Your task to perform on an android device: open app "Viber Messenger" (install if not already installed) and go to login screen Image 0: 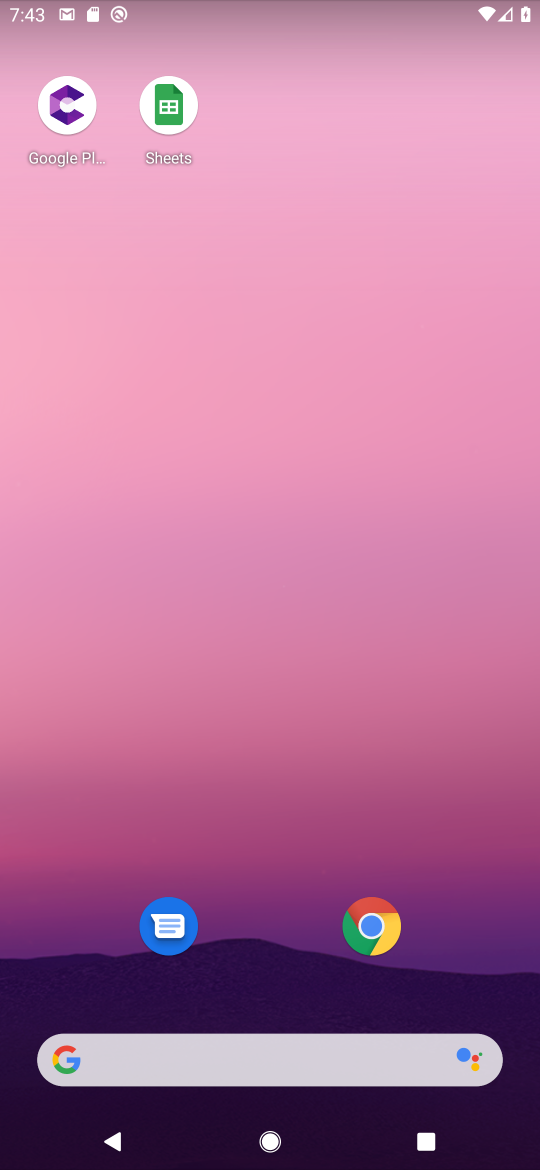
Step 0: drag from (281, 997) to (492, 32)
Your task to perform on an android device: open app "Viber Messenger" (install if not already installed) and go to login screen Image 1: 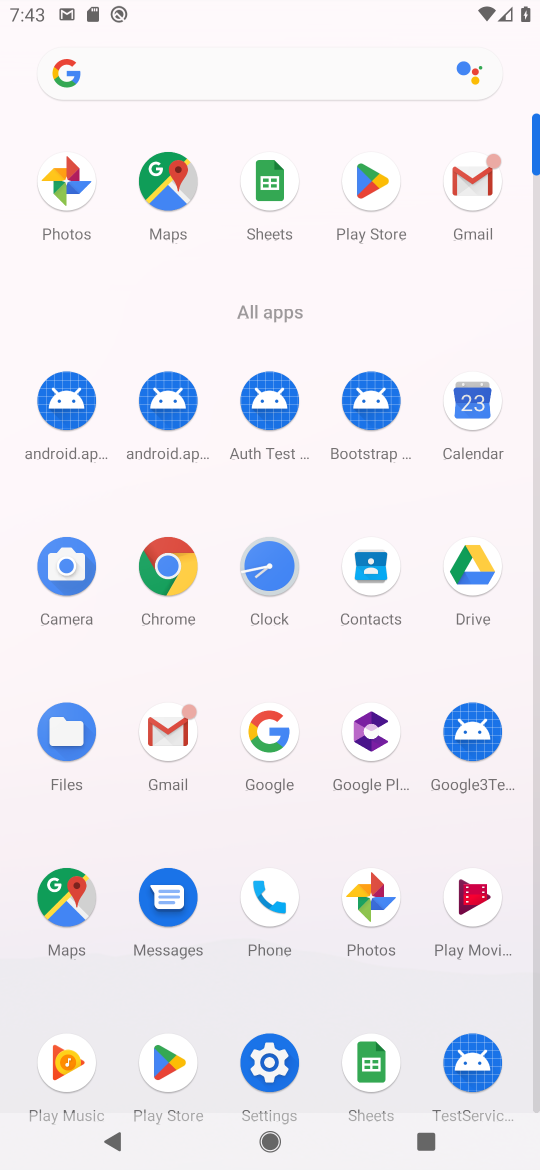
Step 1: click (378, 210)
Your task to perform on an android device: open app "Viber Messenger" (install if not already installed) and go to login screen Image 2: 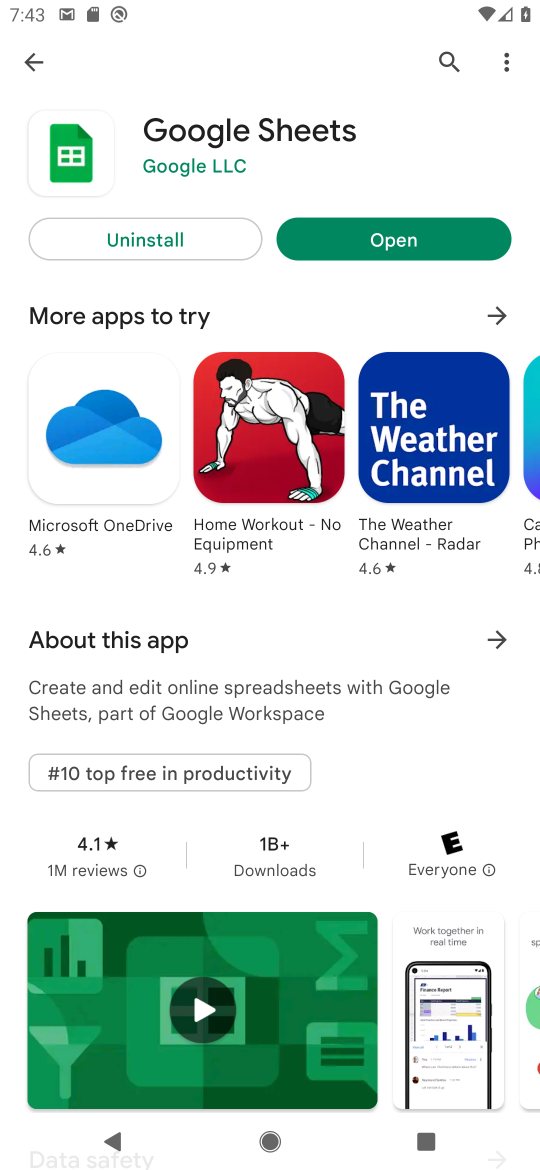
Step 2: click (45, 63)
Your task to perform on an android device: open app "Viber Messenger" (install if not already installed) and go to login screen Image 3: 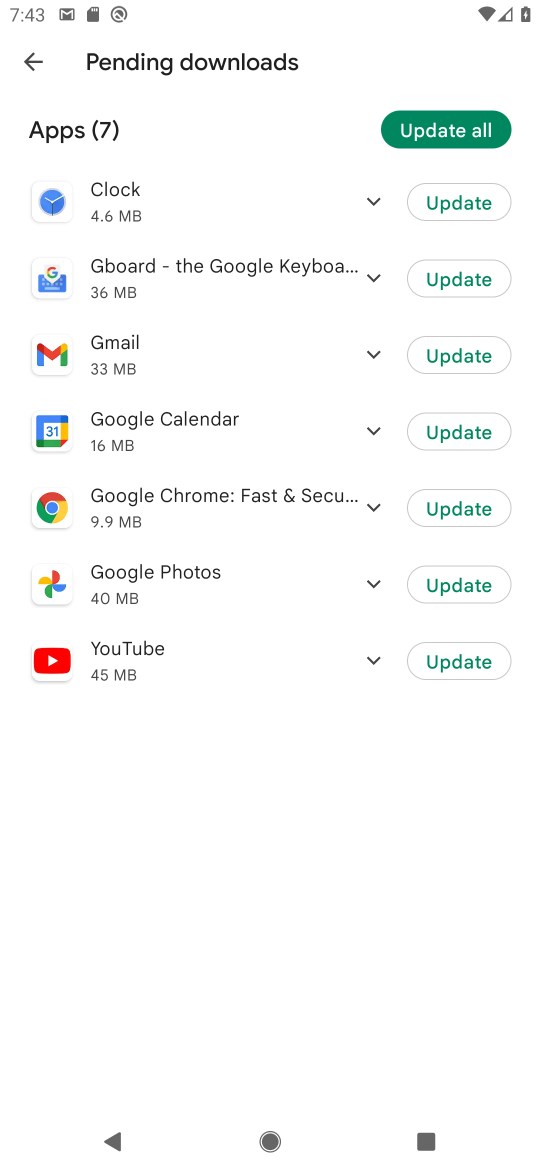
Step 3: click (25, 44)
Your task to perform on an android device: open app "Viber Messenger" (install if not already installed) and go to login screen Image 4: 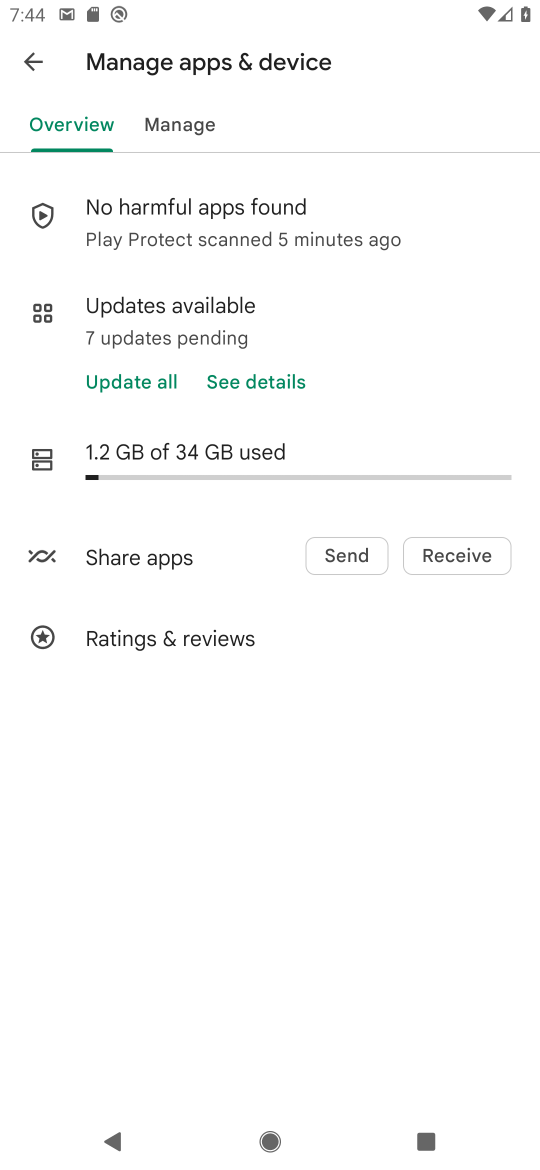
Step 4: click (37, 52)
Your task to perform on an android device: open app "Viber Messenger" (install if not already installed) and go to login screen Image 5: 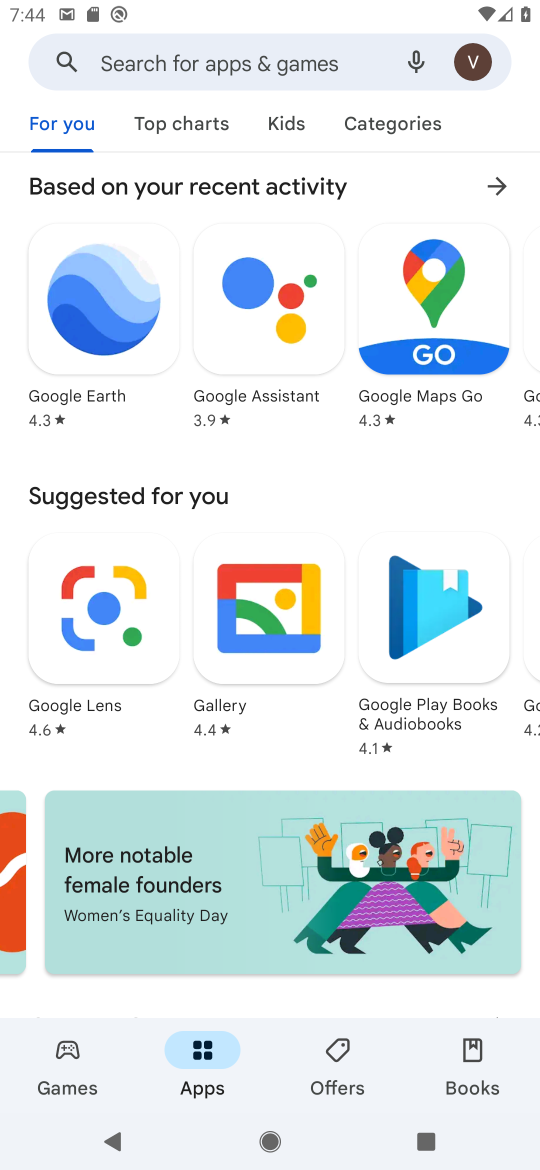
Step 5: click (186, 57)
Your task to perform on an android device: open app "Viber Messenger" (install if not already installed) and go to login screen Image 6: 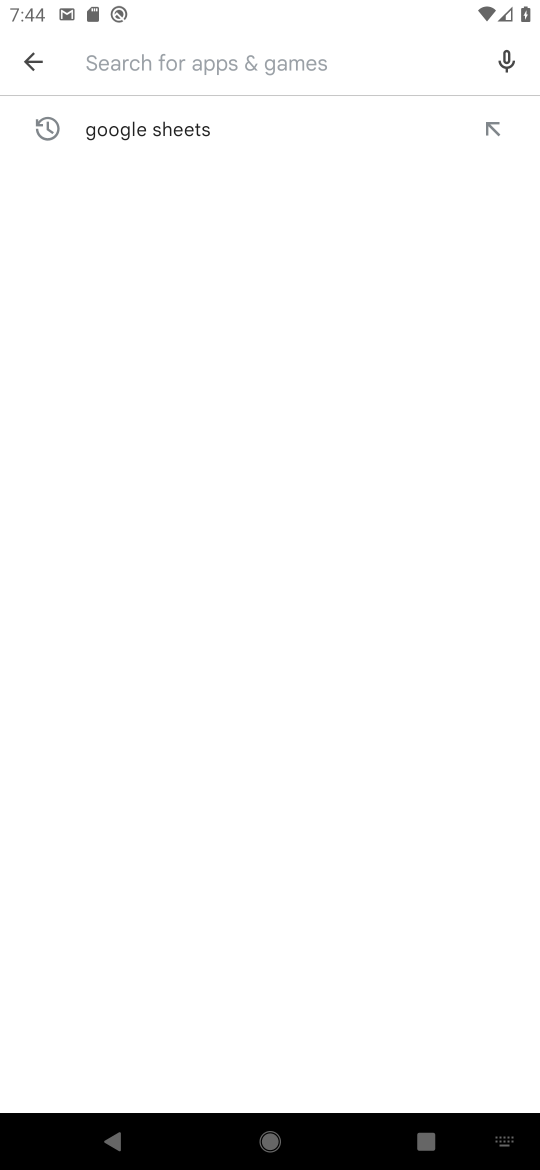
Step 6: type "viber messenger"
Your task to perform on an android device: open app "Viber Messenger" (install if not already installed) and go to login screen Image 7: 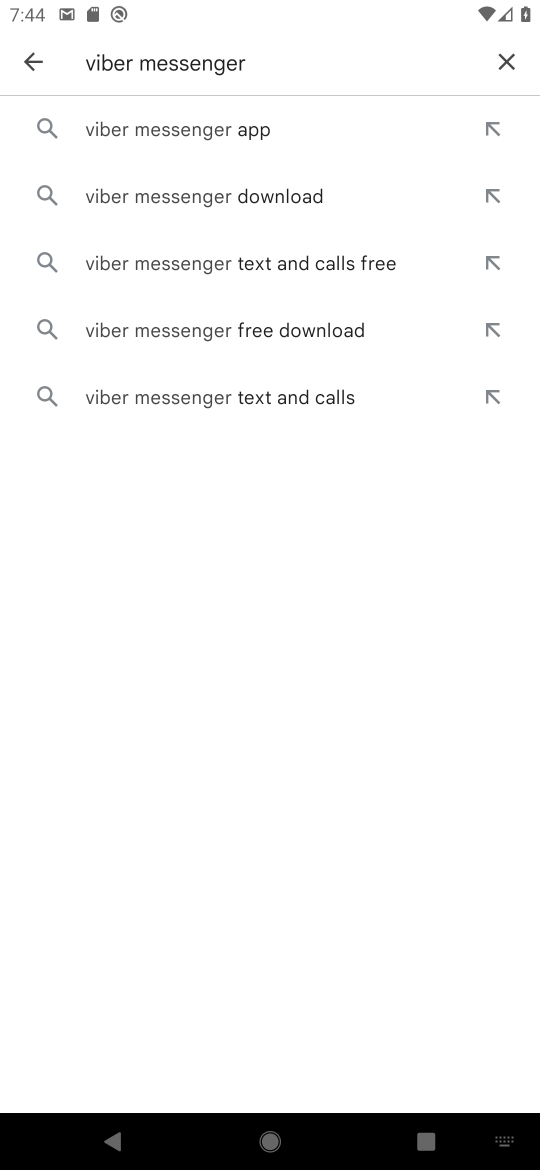
Step 7: click (113, 141)
Your task to perform on an android device: open app "Viber Messenger" (install if not already installed) and go to login screen Image 8: 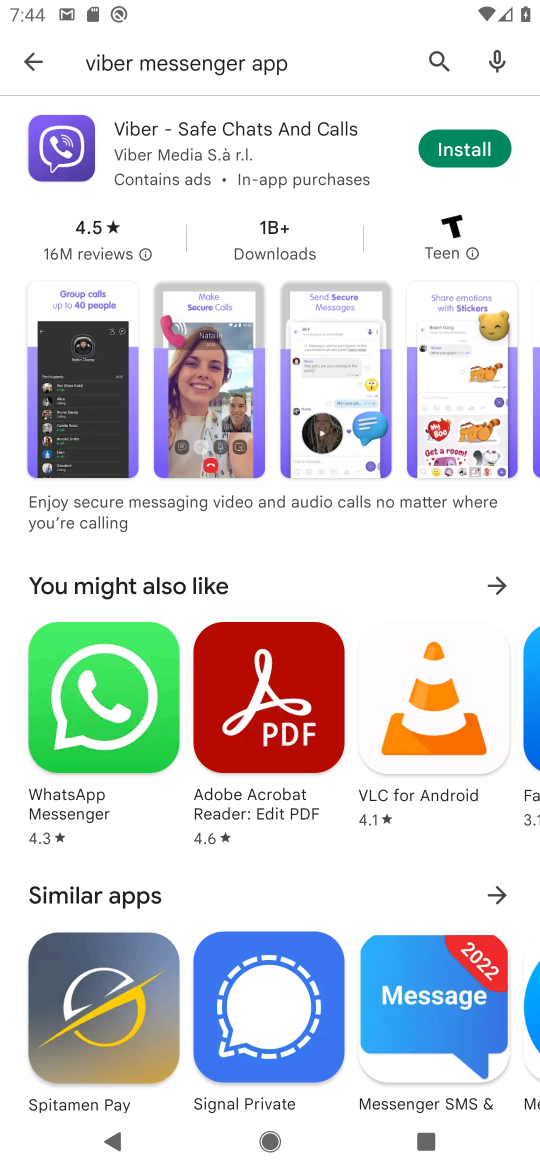
Step 8: click (444, 145)
Your task to perform on an android device: open app "Viber Messenger" (install if not already installed) and go to login screen Image 9: 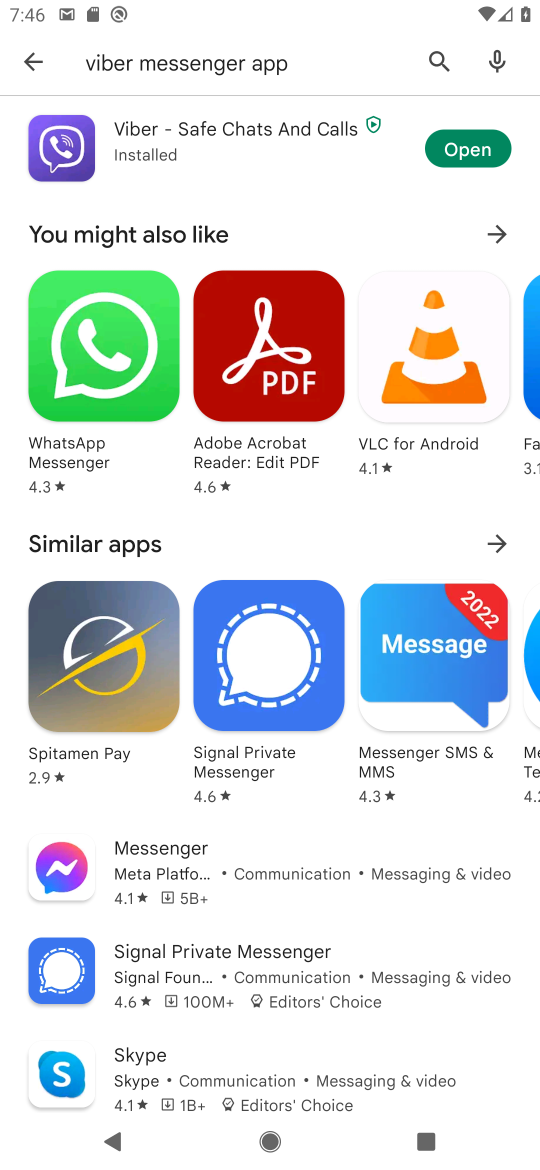
Step 9: click (466, 149)
Your task to perform on an android device: open app "Viber Messenger" (install if not already installed) and go to login screen Image 10: 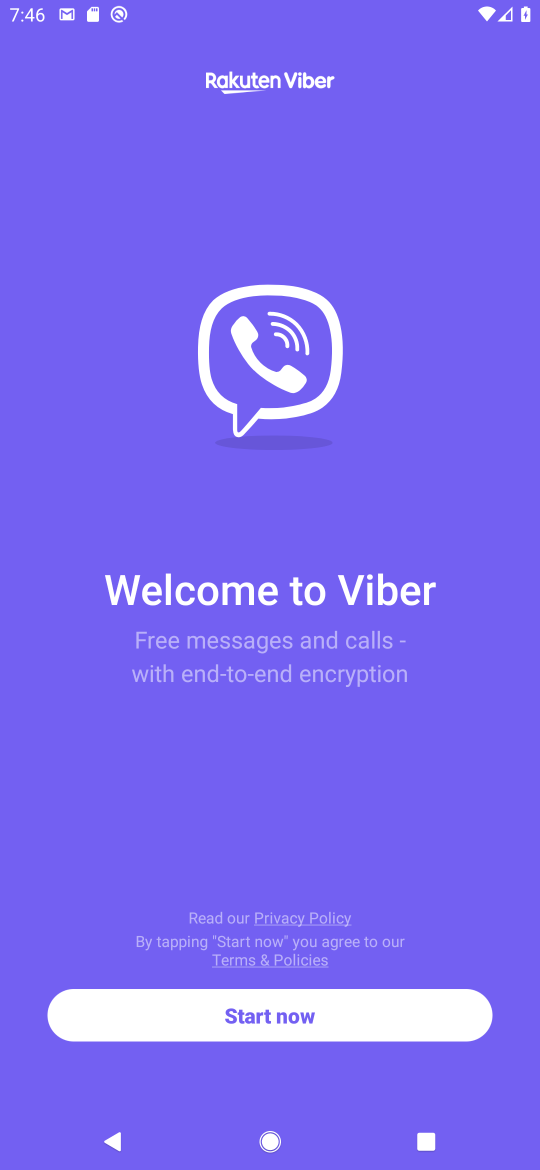
Step 10: click (367, 1001)
Your task to perform on an android device: open app "Viber Messenger" (install if not already installed) and go to login screen Image 11: 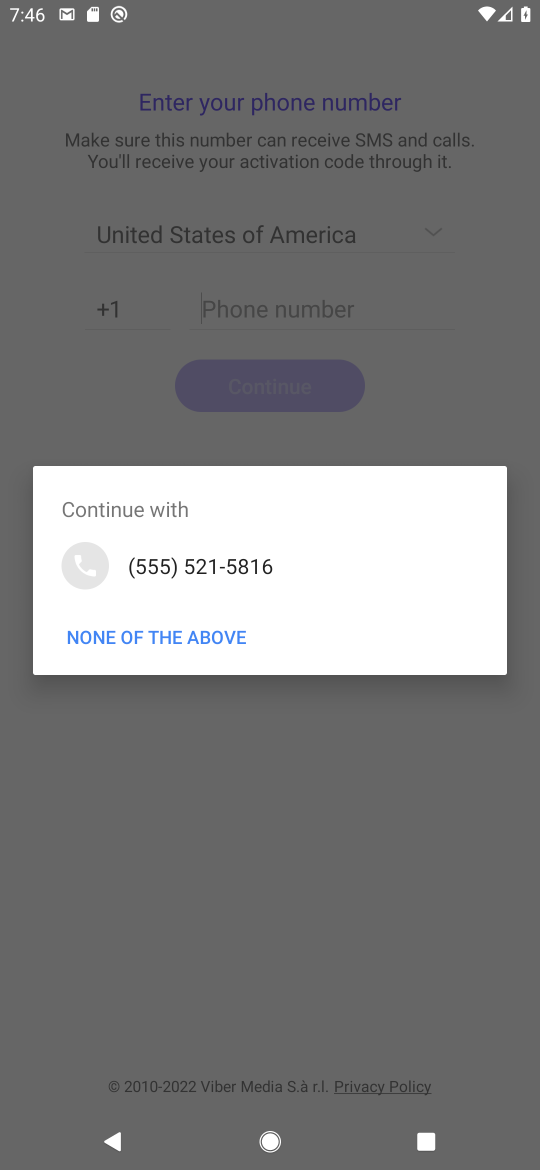
Step 11: click (195, 626)
Your task to perform on an android device: open app "Viber Messenger" (install if not already installed) and go to login screen Image 12: 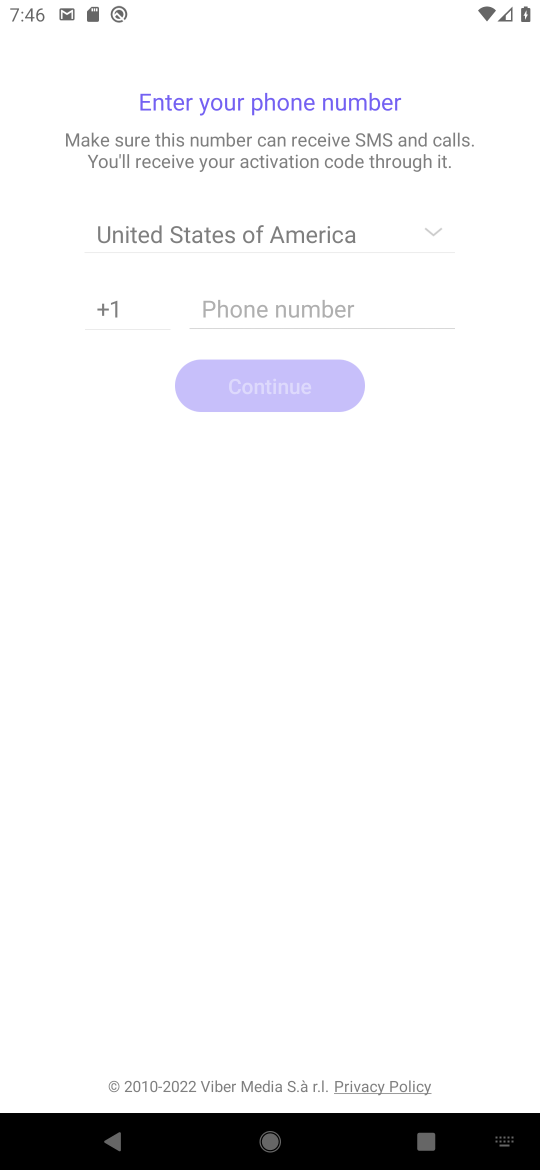
Step 12: task complete